Your task to perform on an android device: Is it going to rain today? Image 0: 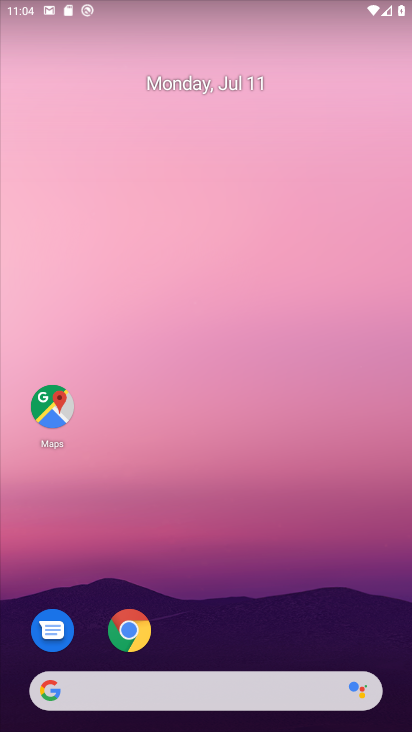
Step 0: drag from (228, 636) to (290, 61)
Your task to perform on an android device: Is it going to rain today? Image 1: 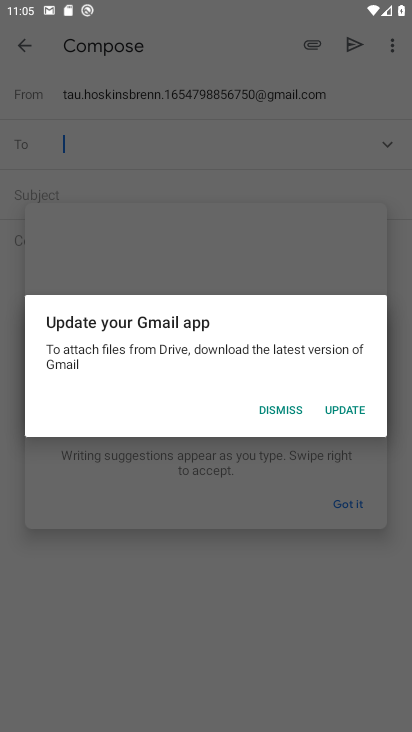
Step 1: press home button
Your task to perform on an android device: Is it going to rain today? Image 2: 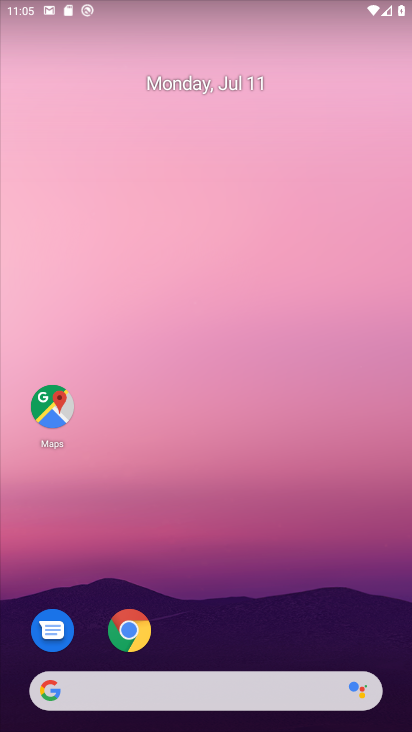
Step 2: drag from (353, 643) to (313, 146)
Your task to perform on an android device: Is it going to rain today? Image 3: 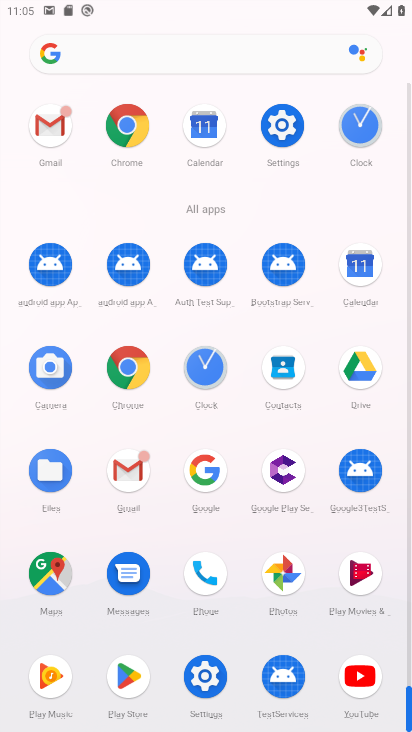
Step 3: click (190, 492)
Your task to perform on an android device: Is it going to rain today? Image 4: 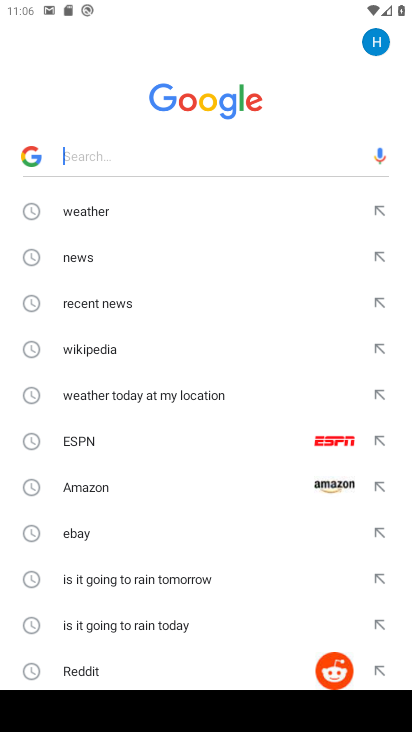
Step 4: click (131, 220)
Your task to perform on an android device: Is it going to rain today? Image 5: 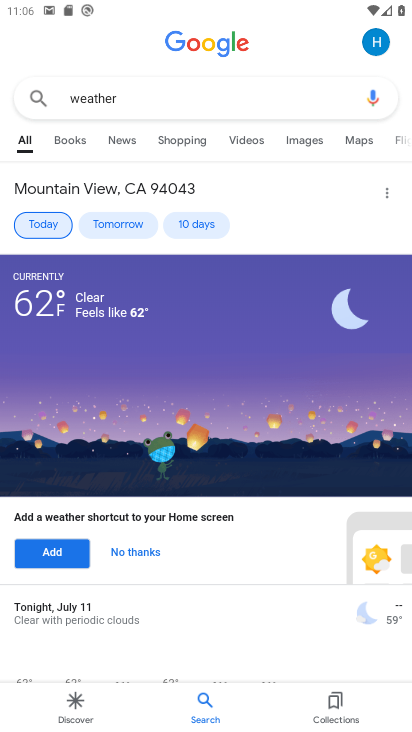
Step 5: task complete